Your task to perform on an android device: View the shopping cart on costco. Search for "usb-a" on costco, select the first entry, and add it to the cart. Image 0: 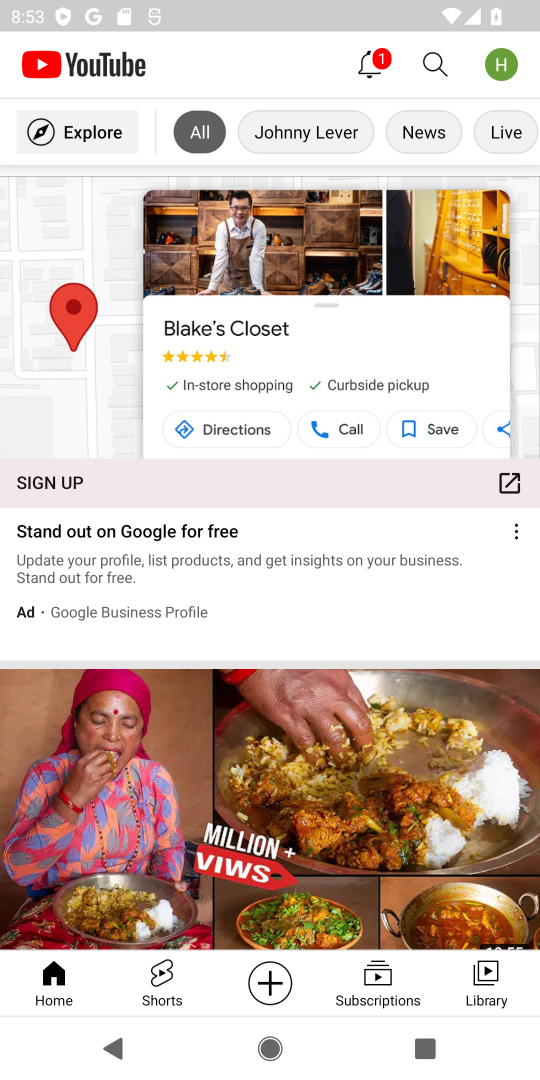
Step 0: press home button
Your task to perform on an android device: View the shopping cart on costco. Search for "usb-a" on costco, select the first entry, and add it to the cart. Image 1: 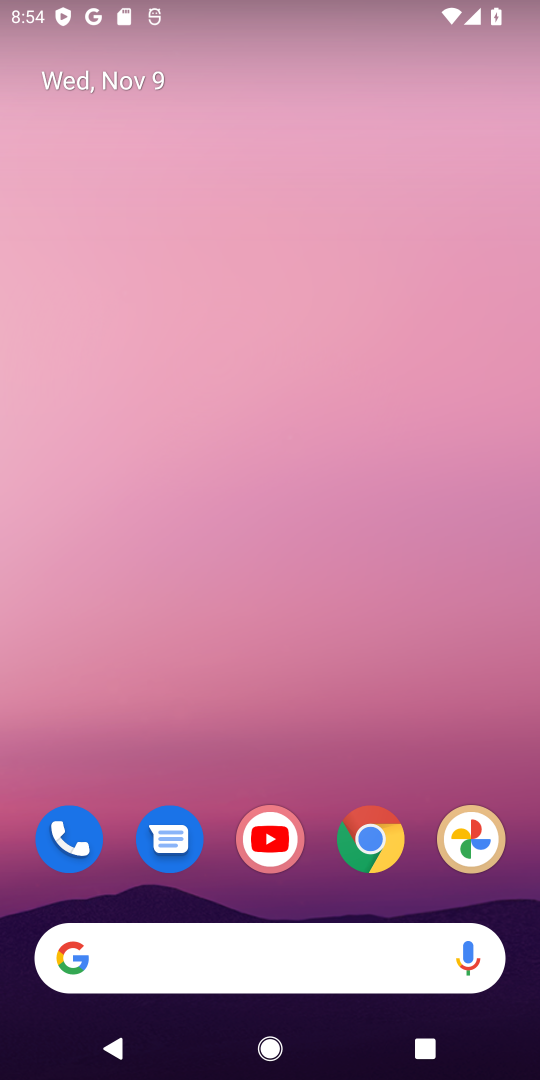
Step 1: drag from (184, 687) to (117, 85)
Your task to perform on an android device: View the shopping cart on costco. Search for "usb-a" on costco, select the first entry, and add it to the cart. Image 2: 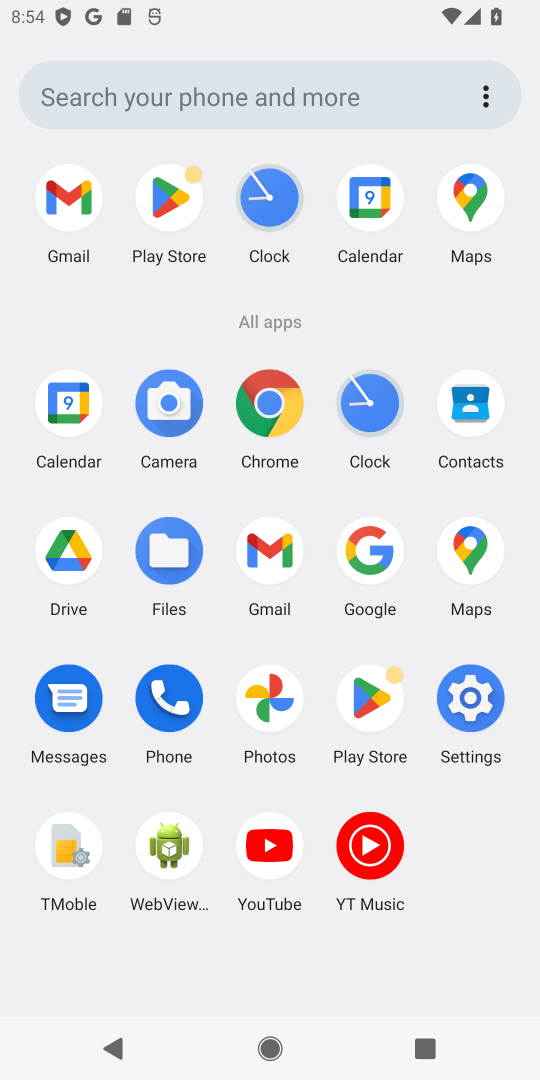
Step 2: click (271, 395)
Your task to perform on an android device: View the shopping cart on costco. Search for "usb-a" on costco, select the first entry, and add it to the cart. Image 3: 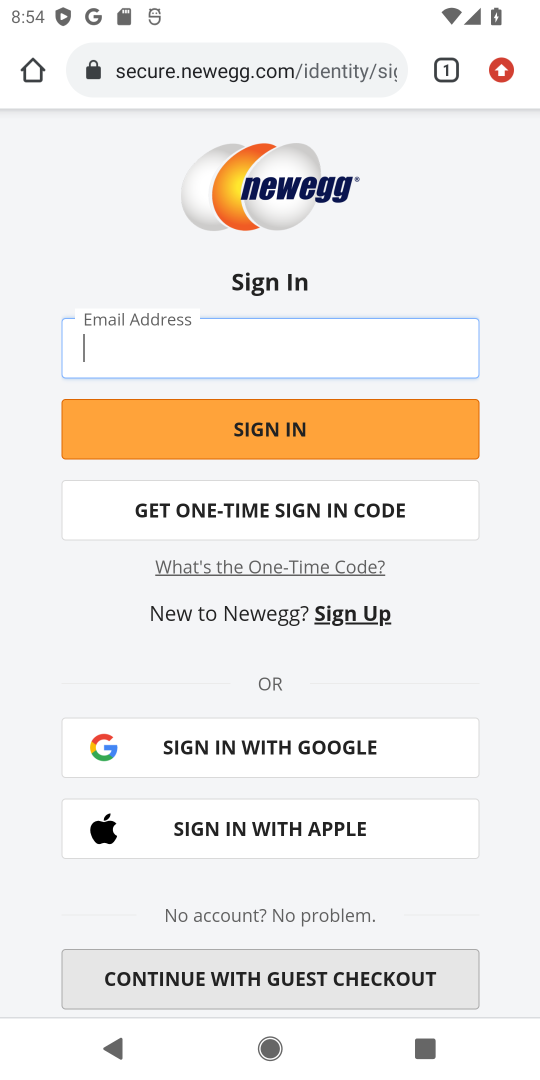
Step 3: click (177, 63)
Your task to perform on an android device: View the shopping cart on costco. Search for "usb-a" on costco, select the first entry, and add it to the cart. Image 4: 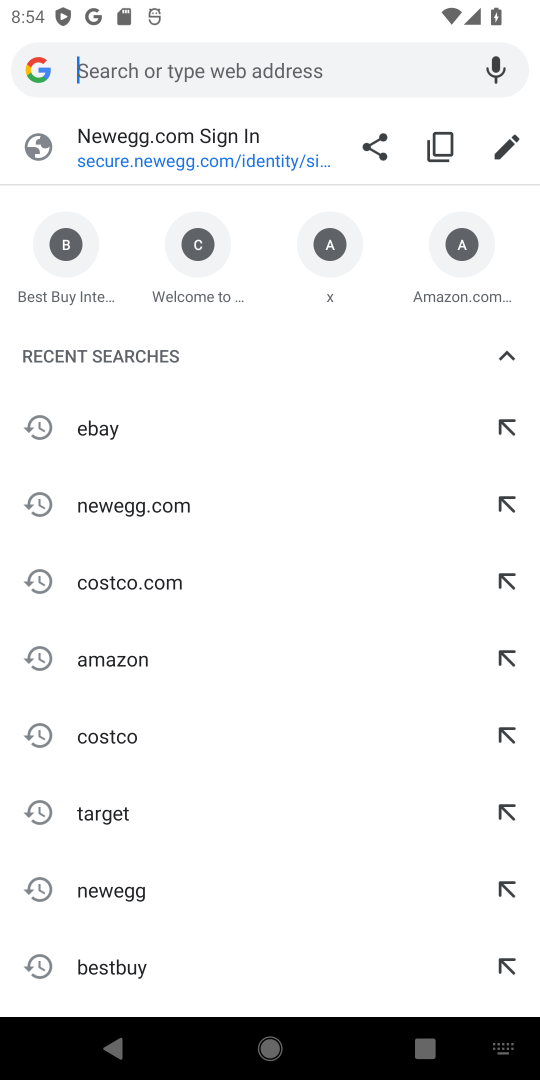
Step 4: type "costco"
Your task to perform on an android device: View the shopping cart on costco. Search for "usb-a" on costco, select the first entry, and add it to the cart. Image 5: 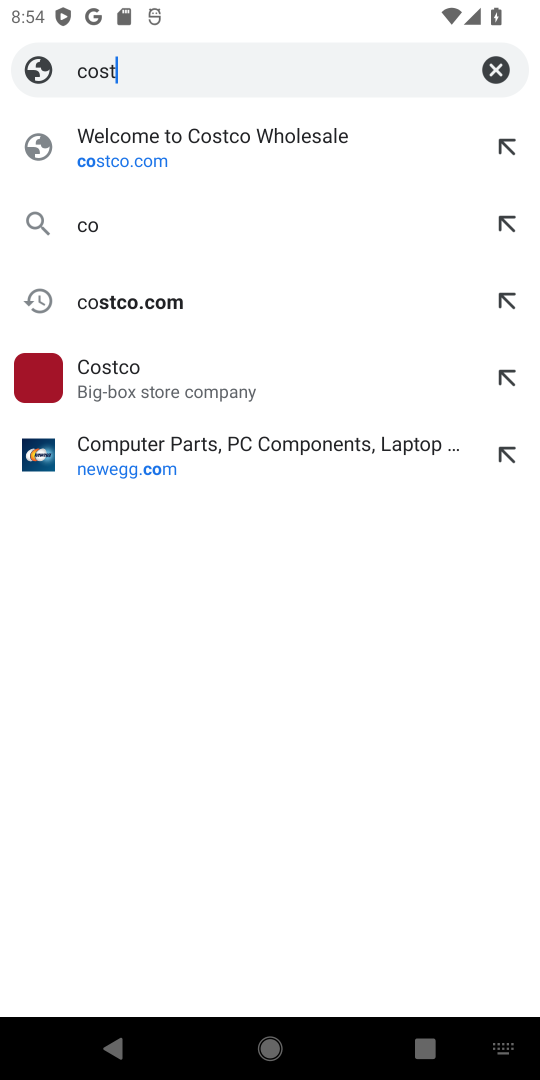
Step 5: press enter
Your task to perform on an android device: View the shopping cart on costco. Search for "usb-a" on costco, select the first entry, and add it to the cart. Image 6: 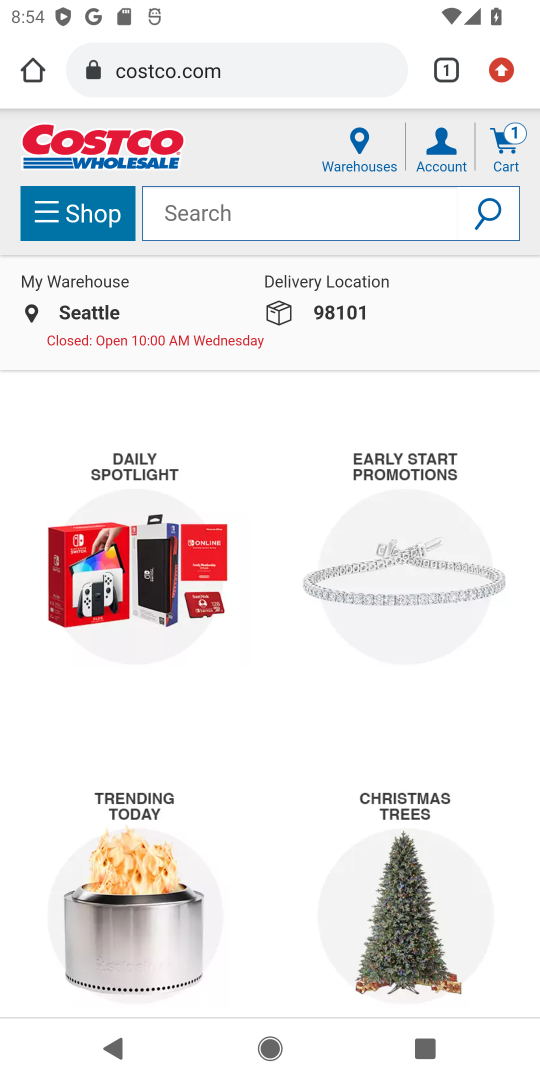
Step 6: click (273, 217)
Your task to perform on an android device: View the shopping cart on costco. Search for "usb-a" on costco, select the first entry, and add it to the cart. Image 7: 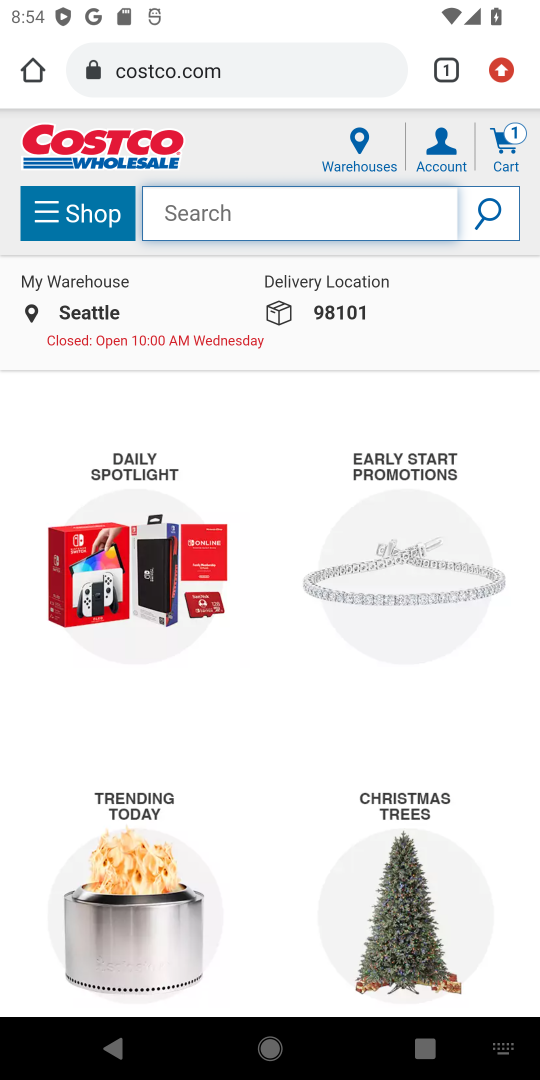
Step 7: type "usb-a""
Your task to perform on an android device: View the shopping cart on costco. Search for "usb-a" on costco, select the first entry, and add it to the cart. Image 8: 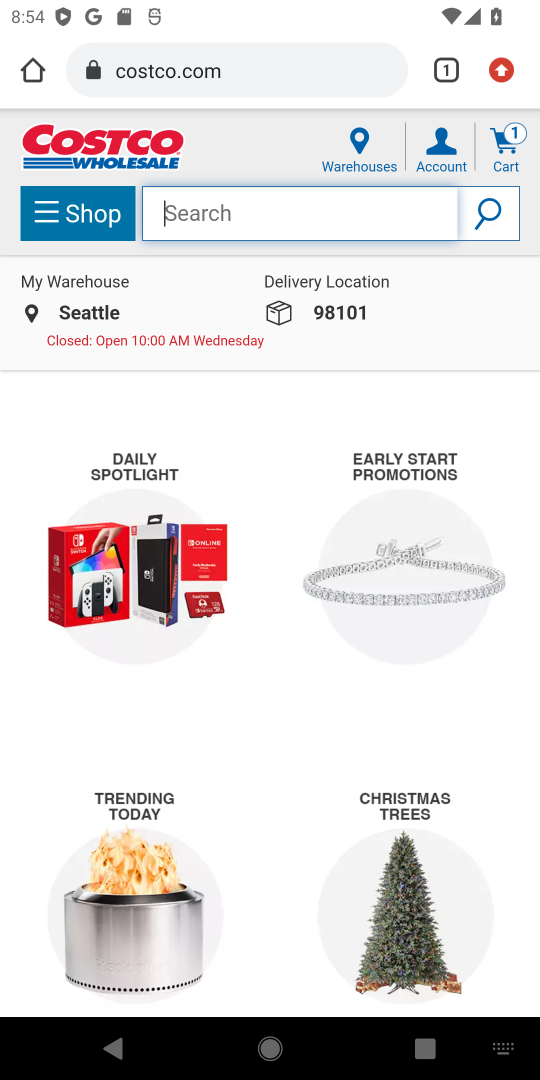
Step 8: press enter
Your task to perform on an android device: View the shopping cart on costco. Search for "usb-a" on costco, select the first entry, and add it to the cart. Image 9: 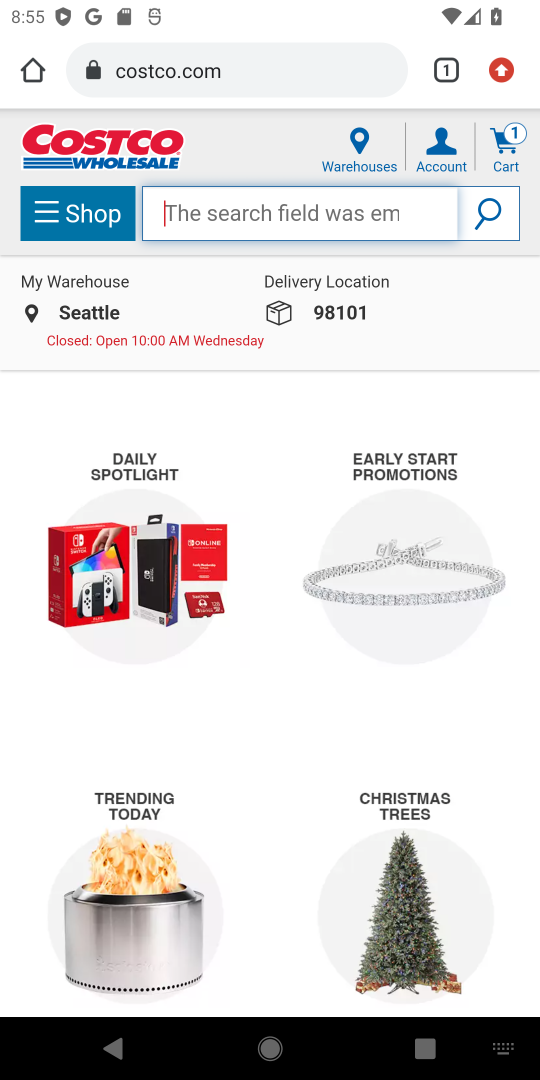
Step 9: click (307, 196)
Your task to perform on an android device: View the shopping cart on costco. Search for "usb-a" on costco, select the first entry, and add it to the cart. Image 10: 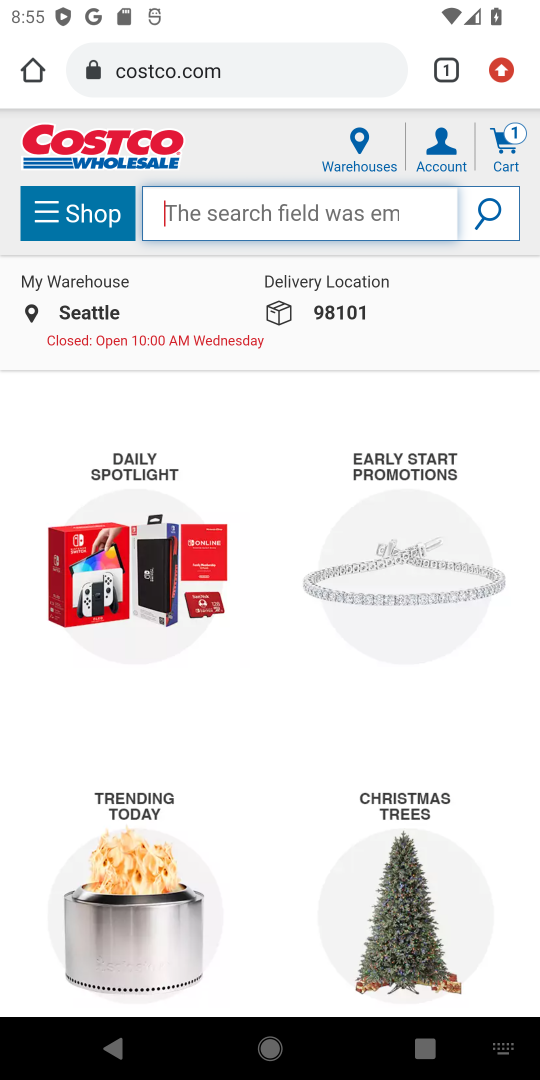
Step 10: type "usb-a""
Your task to perform on an android device: View the shopping cart on costco. Search for "usb-a" on costco, select the first entry, and add it to the cart. Image 11: 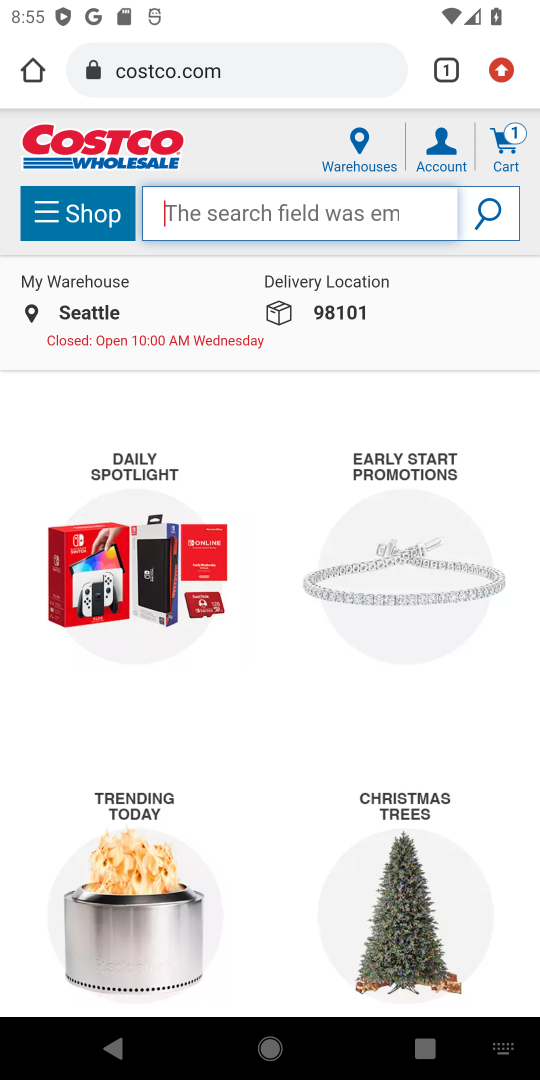
Step 11: press enter
Your task to perform on an android device: View the shopping cart on costco. Search for "usb-a" on costco, select the first entry, and add it to the cart. Image 12: 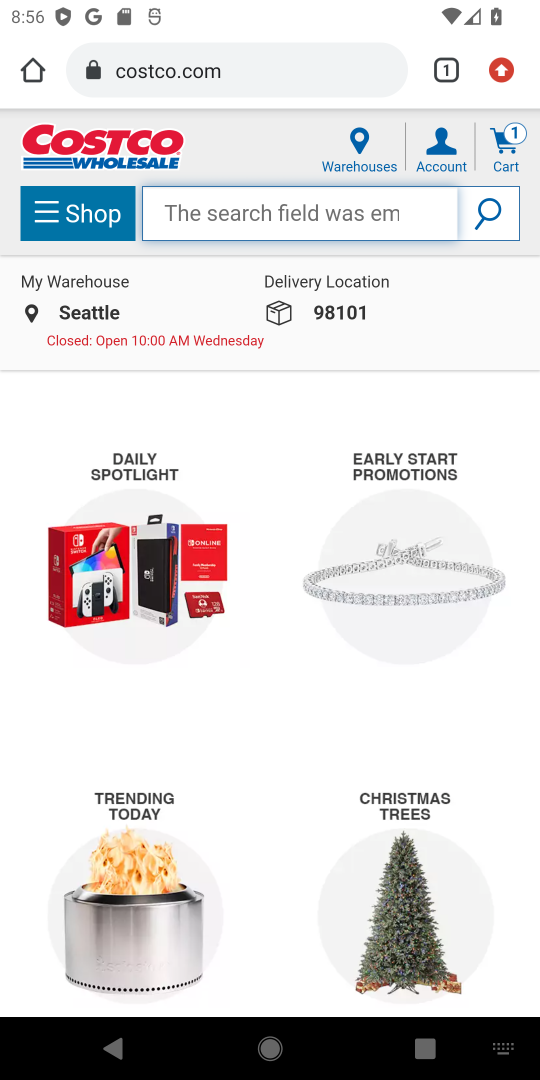
Step 12: type "usb-a""
Your task to perform on an android device: View the shopping cart on costco. Search for "usb-a" on costco, select the first entry, and add it to the cart. Image 13: 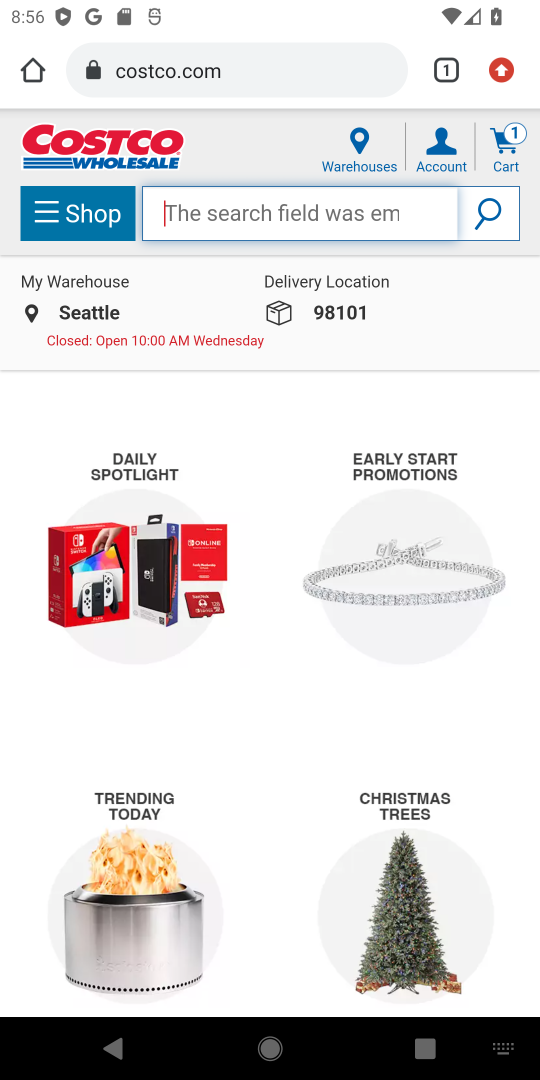
Step 13: press enter
Your task to perform on an android device: View the shopping cart on costco. Search for "usb-a" on costco, select the first entry, and add it to the cart. Image 14: 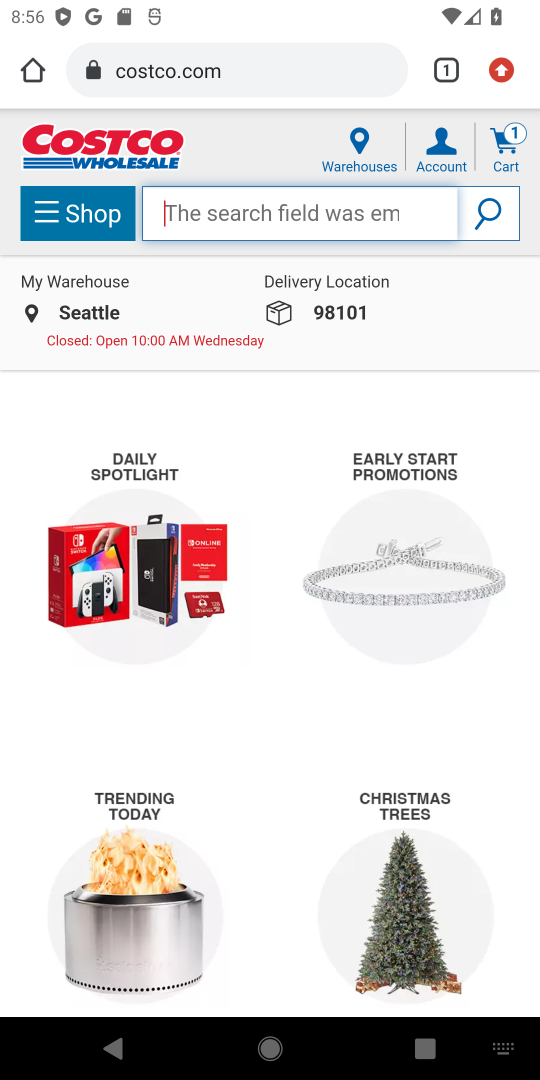
Step 14: task complete